Your task to perform on an android device: Open Wikipedia Image 0: 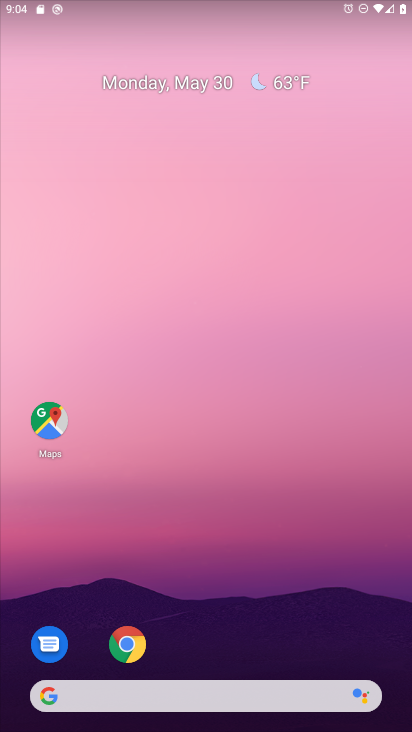
Step 0: click (131, 644)
Your task to perform on an android device: Open Wikipedia Image 1: 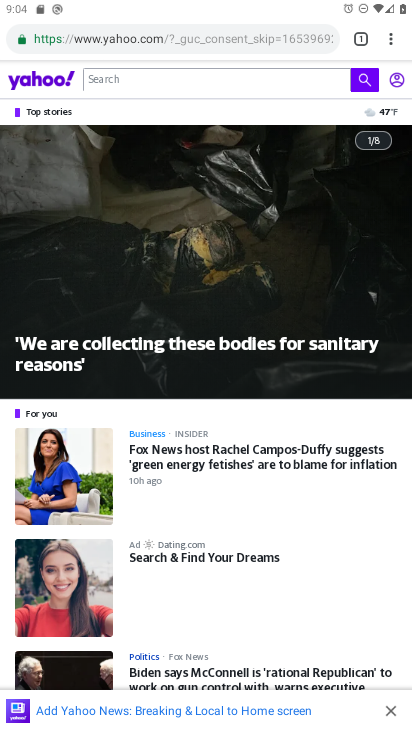
Step 1: press back button
Your task to perform on an android device: Open Wikipedia Image 2: 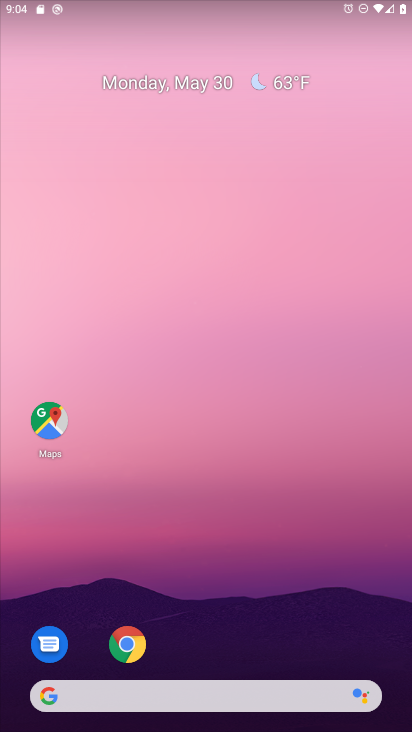
Step 2: click (128, 645)
Your task to perform on an android device: Open Wikipedia Image 3: 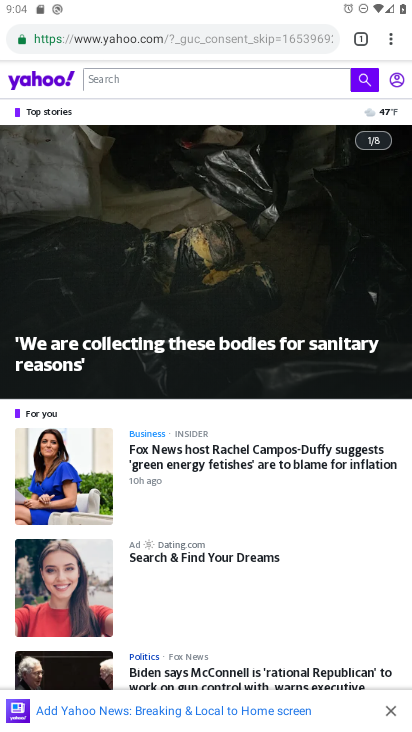
Step 3: click (246, 41)
Your task to perform on an android device: Open Wikipedia Image 4: 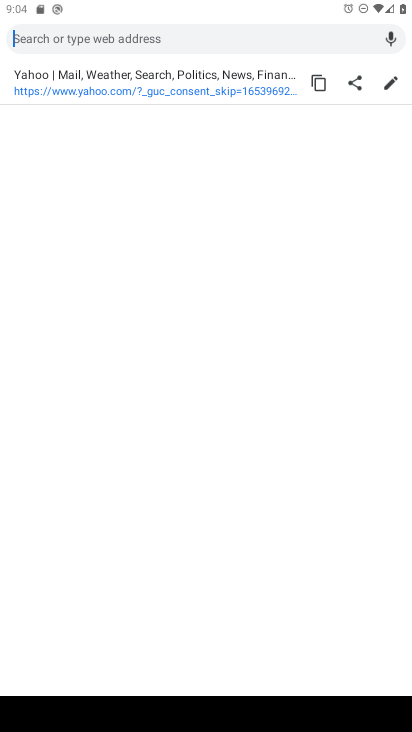
Step 4: type "wikkipedia"
Your task to perform on an android device: Open Wikipedia Image 5: 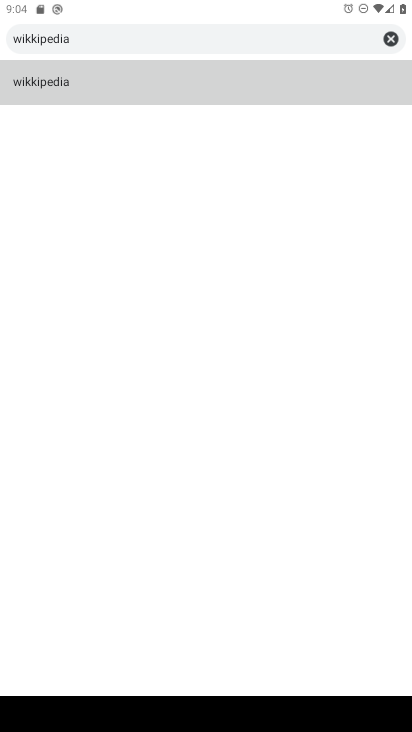
Step 5: click (207, 83)
Your task to perform on an android device: Open Wikipedia Image 6: 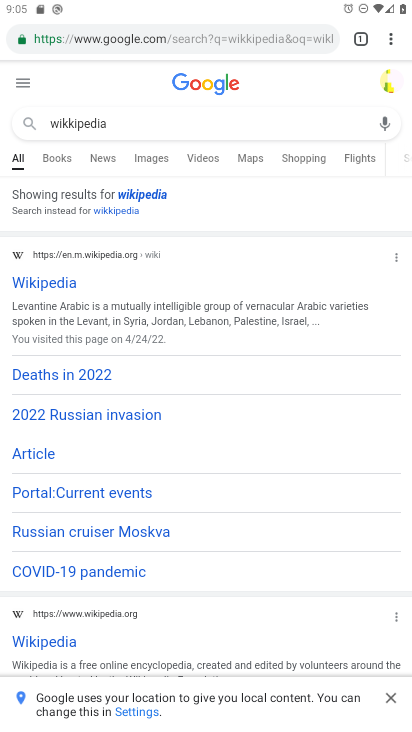
Step 6: click (39, 284)
Your task to perform on an android device: Open Wikipedia Image 7: 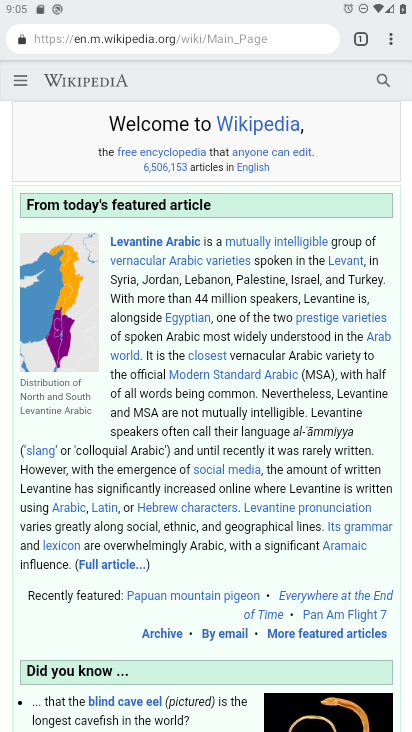
Step 7: task complete